Your task to perform on an android device: Open eBay Image 0: 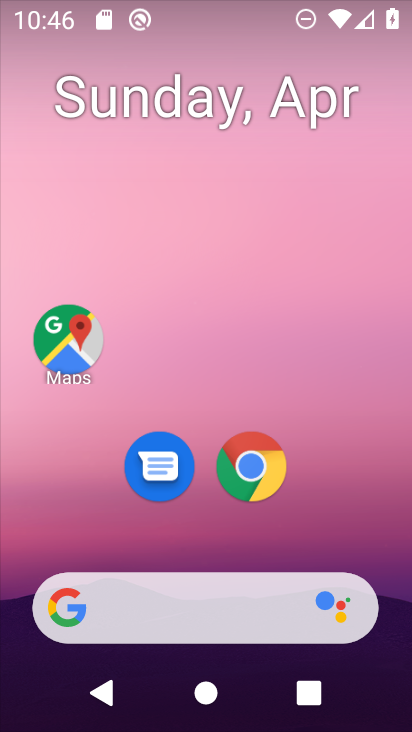
Step 0: drag from (368, 501) to (363, 115)
Your task to perform on an android device: Open eBay Image 1: 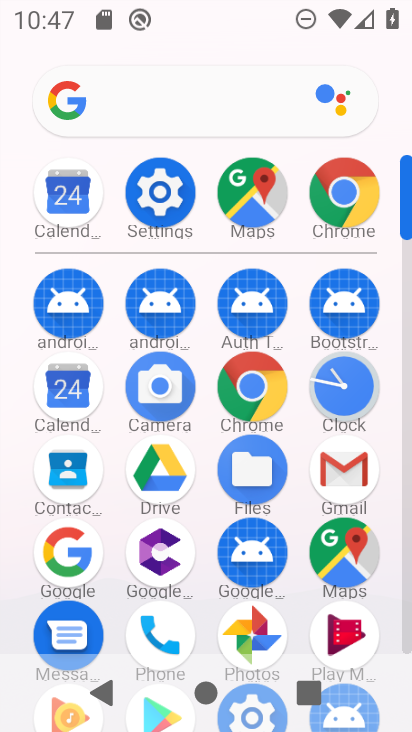
Step 1: click (346, 190)
Your task to perform on an android device: Open eBay Image 2: 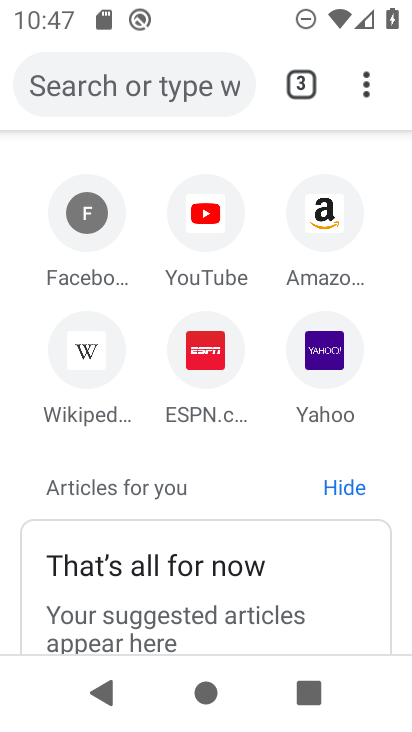
Step 2: click (153, 83)
Your task to perform on an android device: Open eBay Image 3: 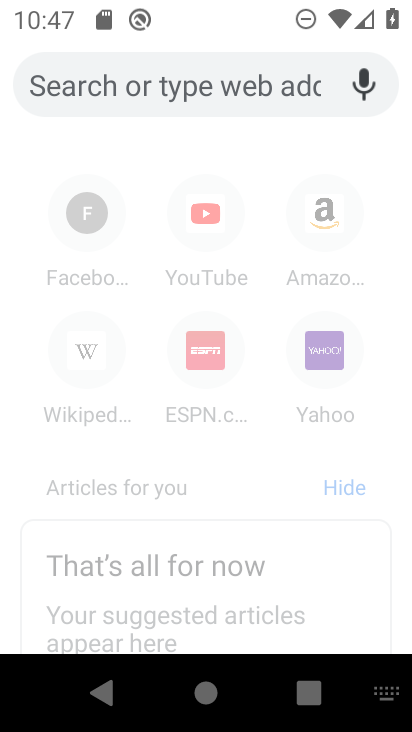
Step 3: type "eaby"
Your task to perform on an android device: Open eBay Image 4: 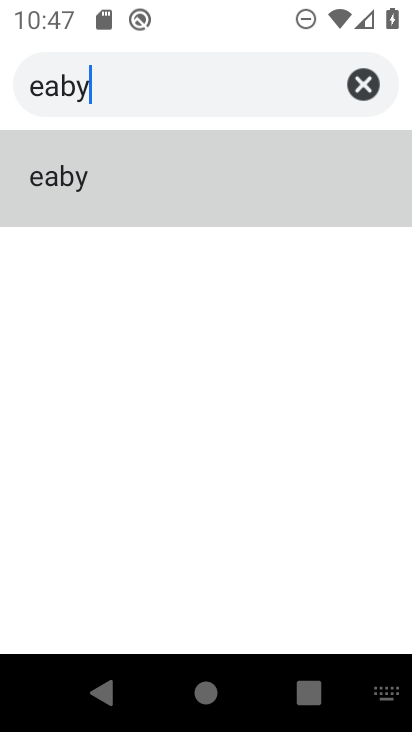
Step 4: click (94, 197)
Your task to perform on an android device: Open eBay Image 5: 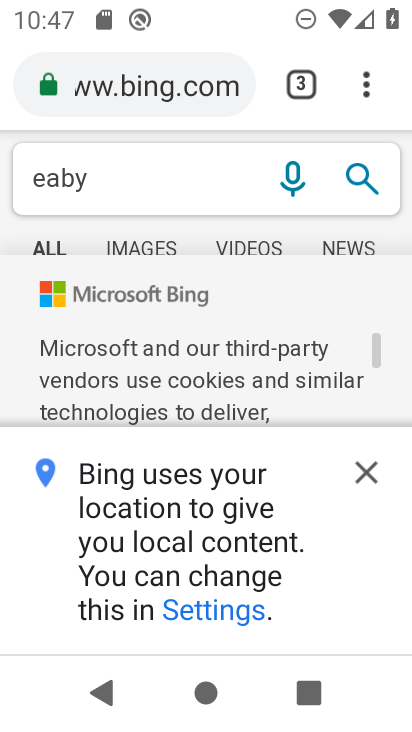
Step 5: task complete